Your task to perform on an android device: clear history in the chrome app Image 0: 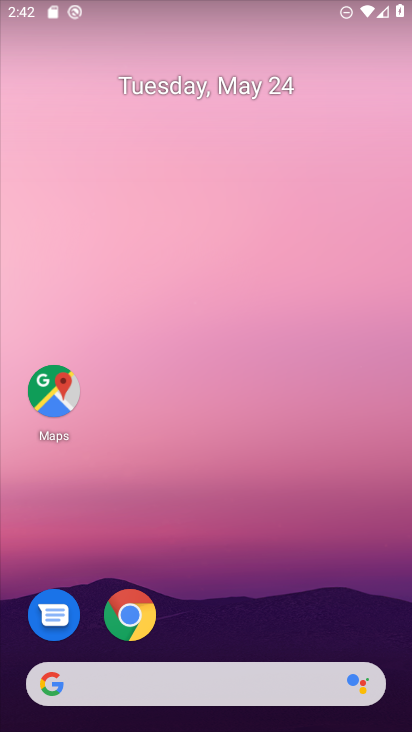
Step 0: drag from (218, 594) to (264, 106)
Your task to perform on an android device: clear history in the chrome app Image 1: 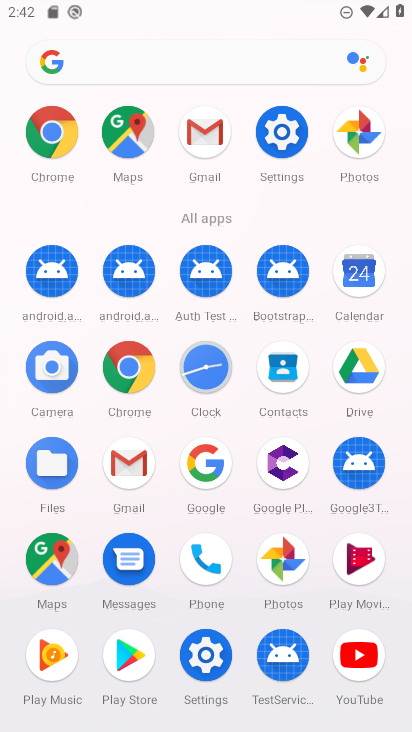
Step 1: click (53, 146)
Your task to perform on an android device: clear history in the chrome app Image 2: 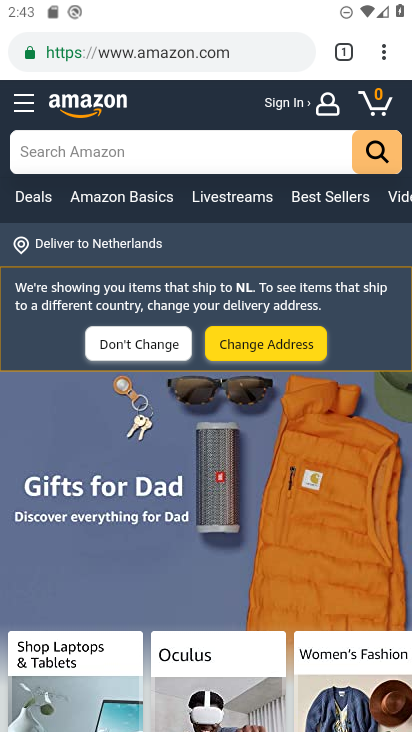
Step 2: click (388, 62)
Your task to perform on an android device: clear history in the chrome app Image 3: 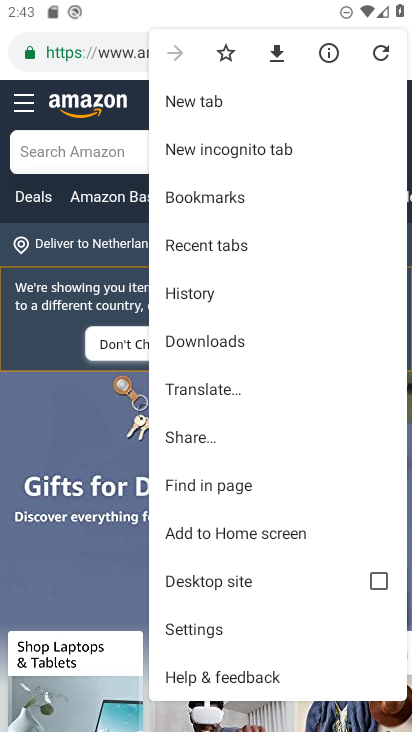
Step 3: click (212, 291)
Your task to perform on an android device: clear history in the chrome app Image 4: 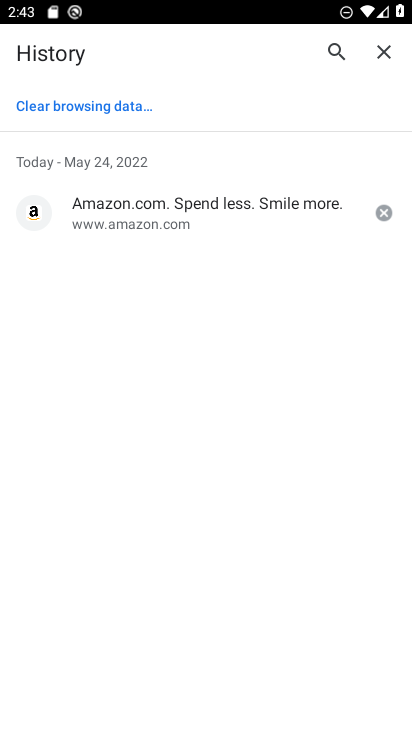
Step 4: click (104, 100)
Your task to perform on an android device: clear history in the chrome app Image 5: 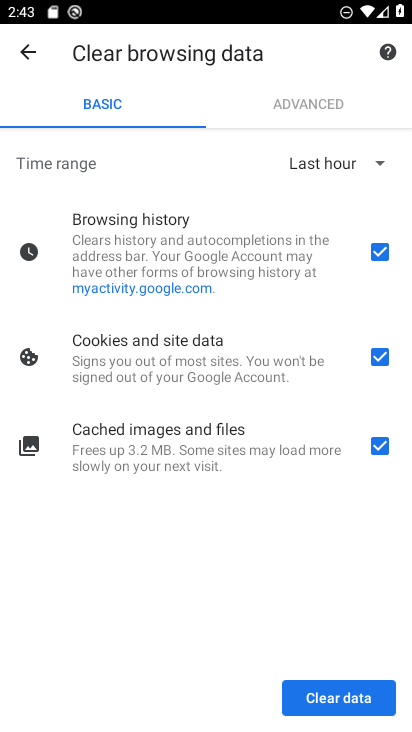
Step 5: click (336, 693)
Your task to perform on an android device: clear history in the chrome app Image 6: 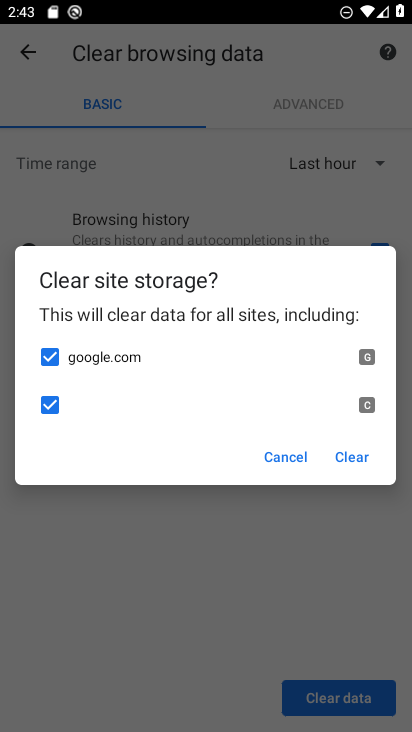
Step 6: click (364, 455)
Your task to perform on an android device: clear history in the chrome app Image 7: 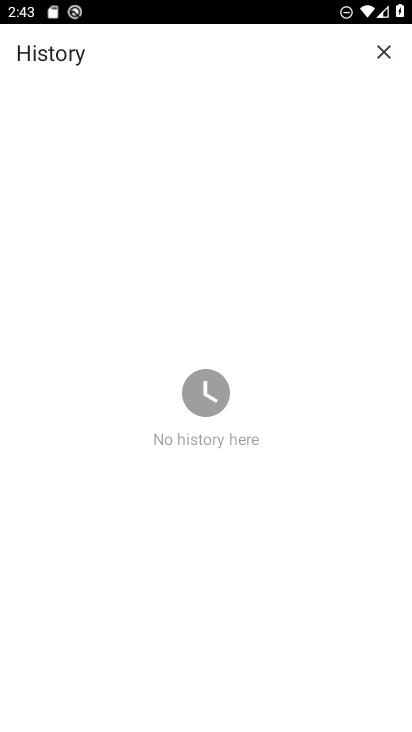
Step 7: task complete